Your task to perform on an android device: How do I get to the nearest Sprint Store? Image 0: 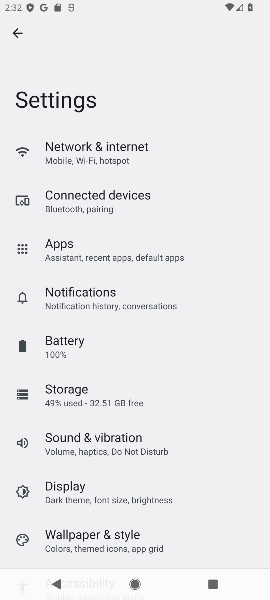
Step 0: press home button
Your task to perform on an android device: How do I get to the nearest Sprint Store? Image 1: 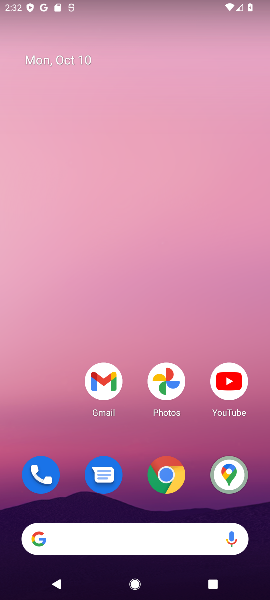
Step 1: drag from (117, 482) to (104, 122)
Your task to perform on an android device: How do I get to the nearest Sprint Store? Image 2: 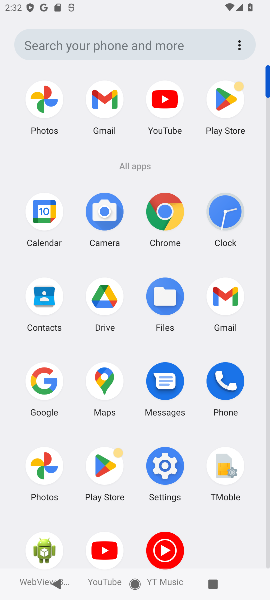
Step 2: click (107, 396)
Your task to perform on an android device: How do I get to the nearest Sprint Store? Image 3: 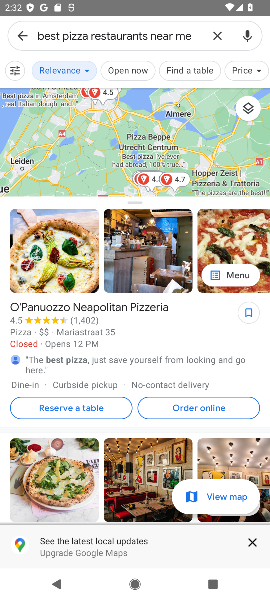
Step 3: click (214, 37)
Your task to perform on an android device: How do I get to the nearest Sprint Store? Image 4: 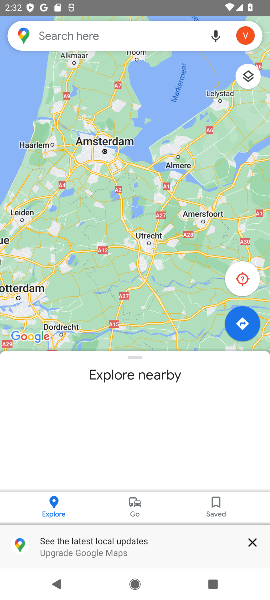
Step 4: click (56, 35)
Your task to perform on an android device: How do I get to the nearest Sprint Store? Image 5: 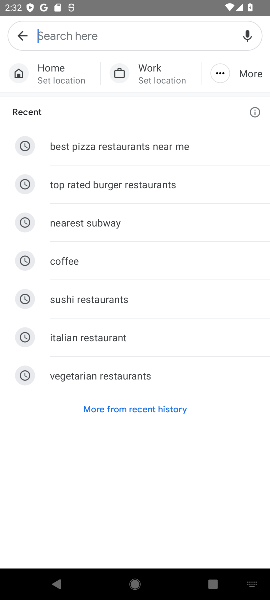
Step 5: type "nearest Sprint Store"
Your task to perform on an android device: How do I get to the nearest Sprint Store? Image 6: 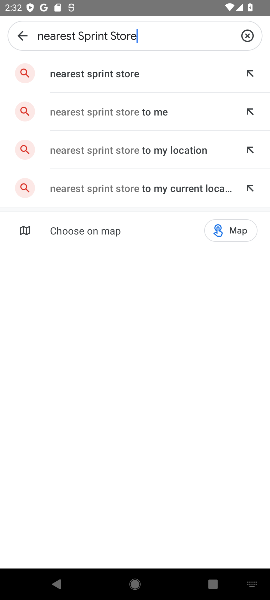
Step 6: click (153, 81)
Your task to perform on an android device: How do I get to the nearest Sprint Store? Image 7: 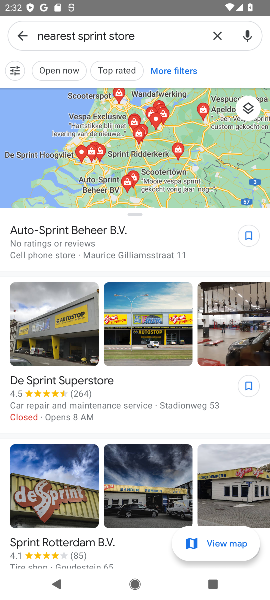
Step 7: click (159, 240)
Your task to perform on an android device: How do I get to the nearest Sprint Store? Image 8: 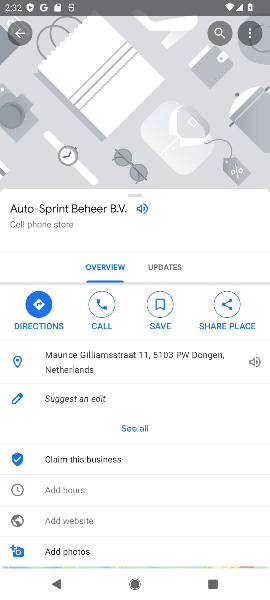
Step 8: click (36, 300)
Your task to perform on an android device: How do I get to the nearest Sprint Store? Image 9: 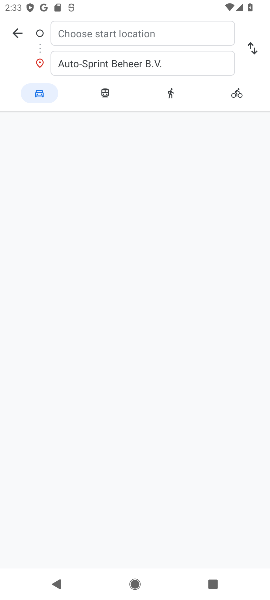
Step 9: click (99, 32)
Your task to perform on an android device: How do I get to the nearest Sprint Store? Image 10: 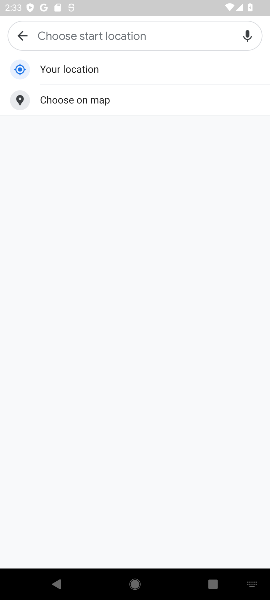
Step 10: click (86, 67)
Your task to perform on an android device: How do I get to the nearest Sprint Store? Image 11: 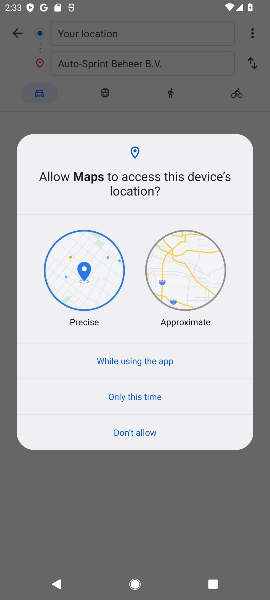
Step 11: click (117, 365)
Your task to perform on an android device: How do I get to the nearest Sprint Store? Image 12: 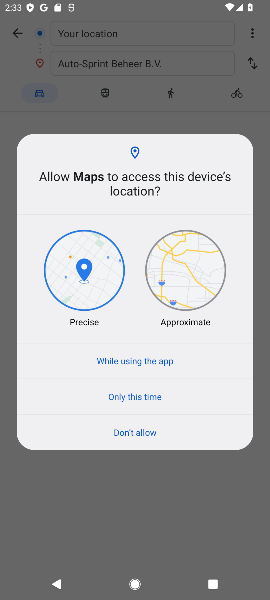
Step 12: click (117, 365)
Your task to perform on an android device: How do I get to the nearest Sprint Store? Image 13: 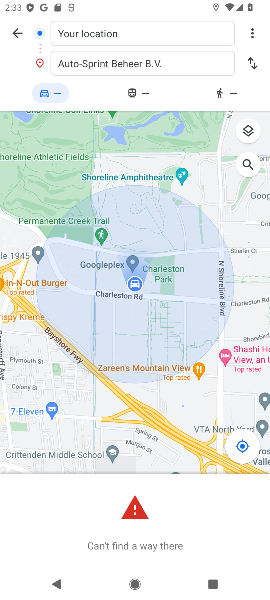
Step 13: task complete